Your task to perform on an android device: toggle improve location accuracy Image 0: 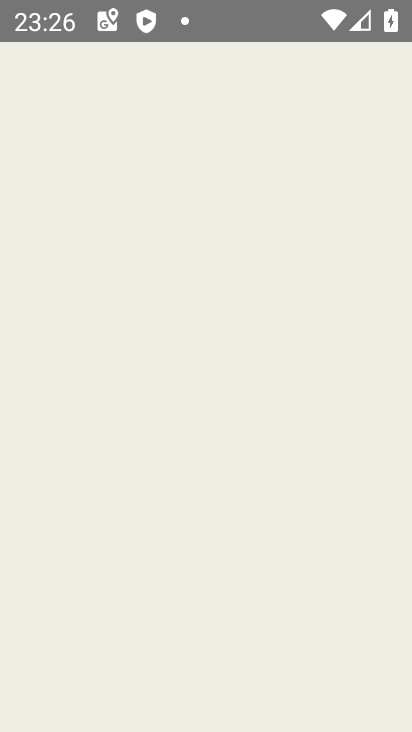
Step 0: click (391, 571)
Your task to perform on an android device: toggle improve location accuracy Image 1: 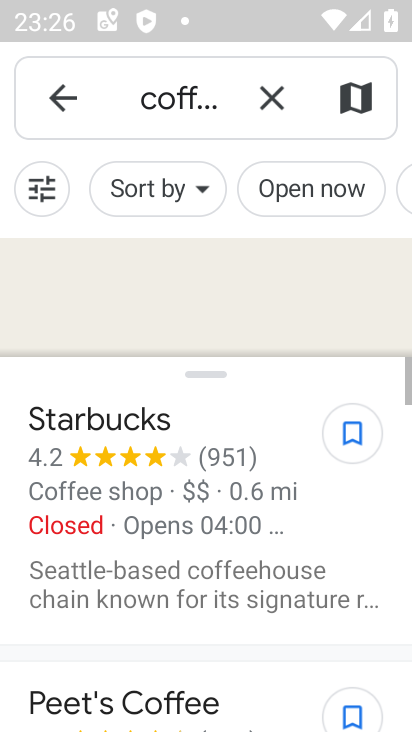
Step 1: press home button
Your task to perform on an android device: toggle improve location accuracy Image 2: 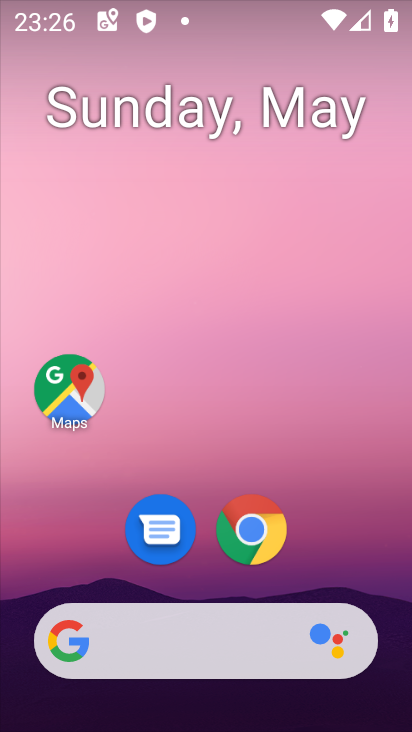
Step 2: drag from (367, 575) to (293, 189)
Your task to perform on an android device: toggle improve location accuracy Image 3: 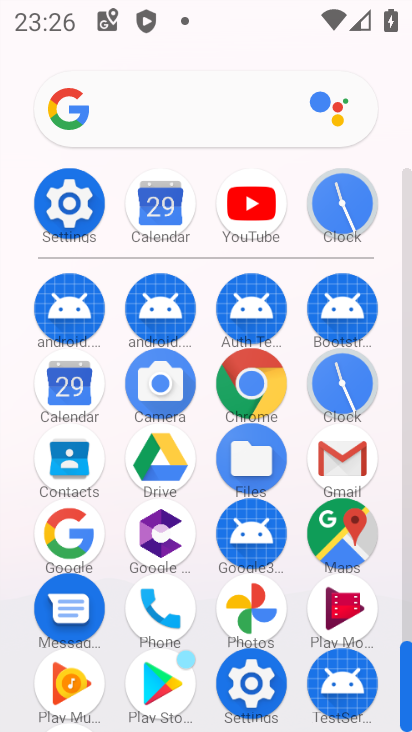
Step 3: click (83, 227)
Your task to perform on an android device: toggle improve location accuracy Image 4: 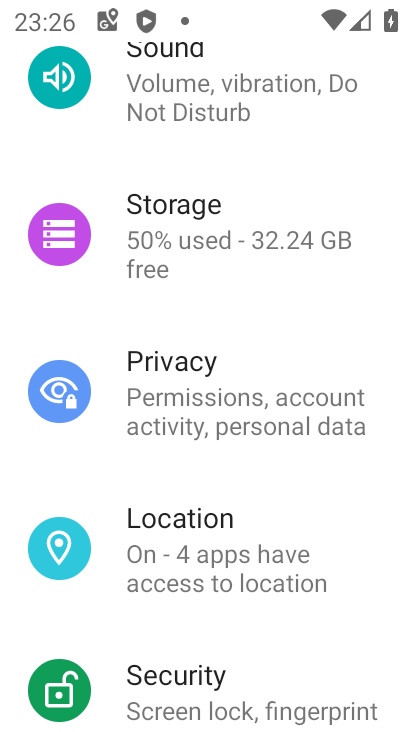
Step 4: click (201, 519)
Your task to perform on an android device: toggle improve location accuracy Image 5: 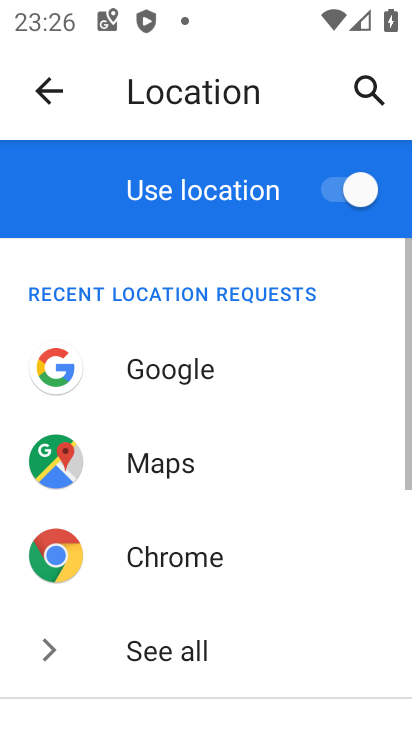
Step 5: task complete